Your task to perform on an android device: Open Chrome and go to the settings page Image 0: 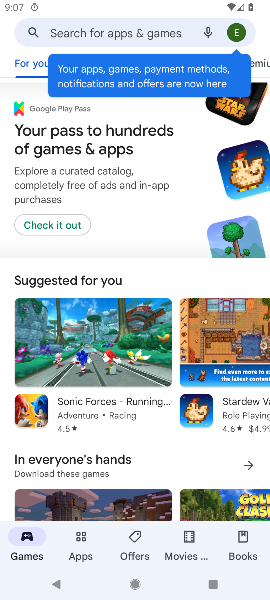
Step 0: press home button
Your task to perform on an android device: Open Chrome and go to the settings page Image 1: 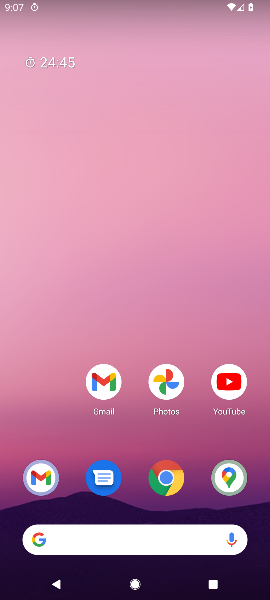
Step 1: drag from (183, 451) to (137, 20)
Your task to perform on an android device: Open Chrome and go to the settings page Image 2: 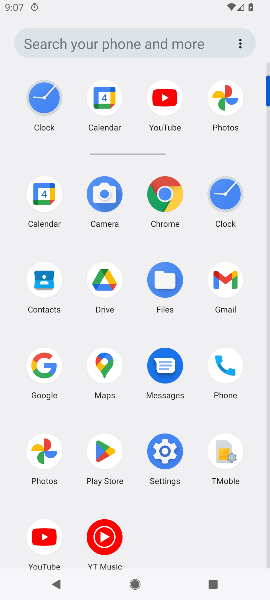
Step 2: click (163, 196)
Your task to perform on an android device: Open Chrome and go to the settings page Image 3: 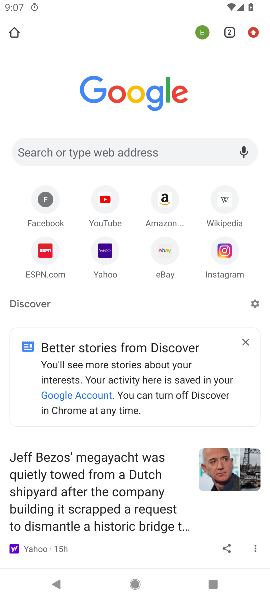
Step 3: task complete